Your task to perform on an android device: refresh tabs in the chrome app Image 0: 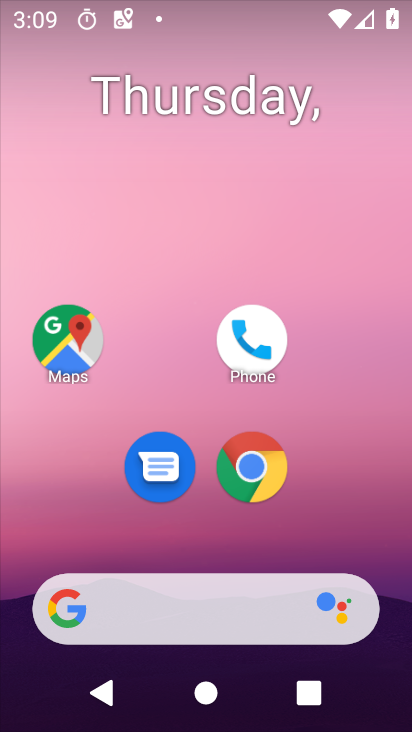
Step 0: drag from (212, 516) to (219, 170)
Your task to perform on an android device: refresh tabs in the chrome app Image 1: 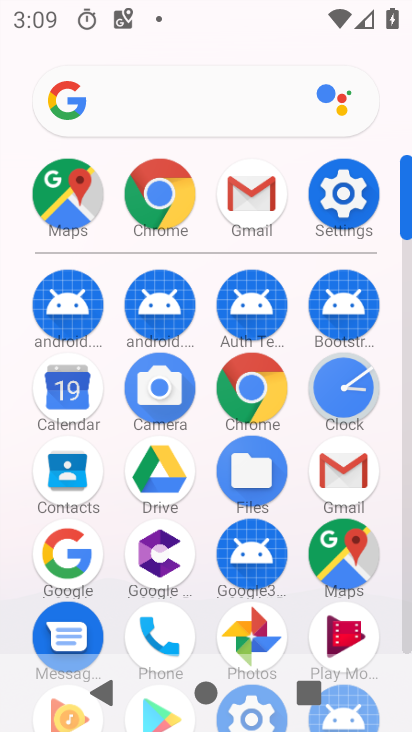
Step 1: click (255, 397)
Your task to perform on an android device: refresh tabs in the chrome app Image 2: 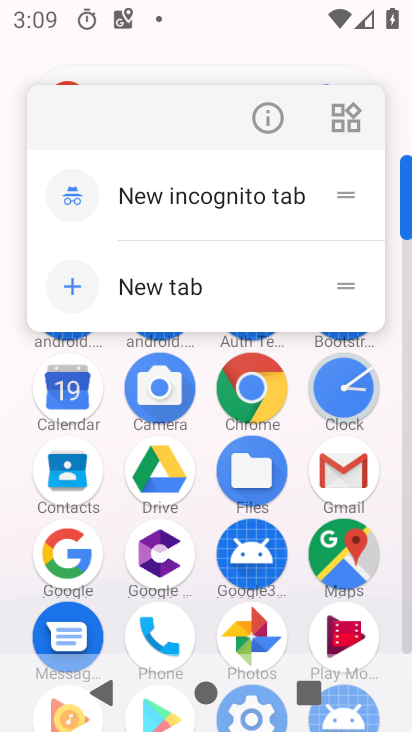
Step 2: click (274, 130)
Your task to perform on an android device: refresh tabs in the chrome app Image 3: 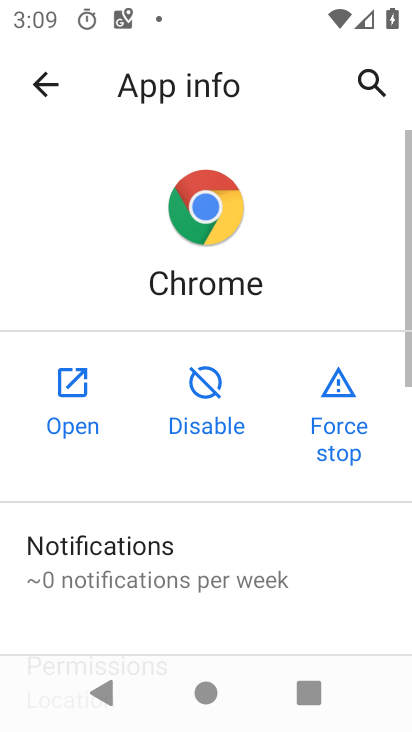
Step 3: click (79, 397)
Your task to perform on an android device: refresh tabs in the chrome app Image 4: 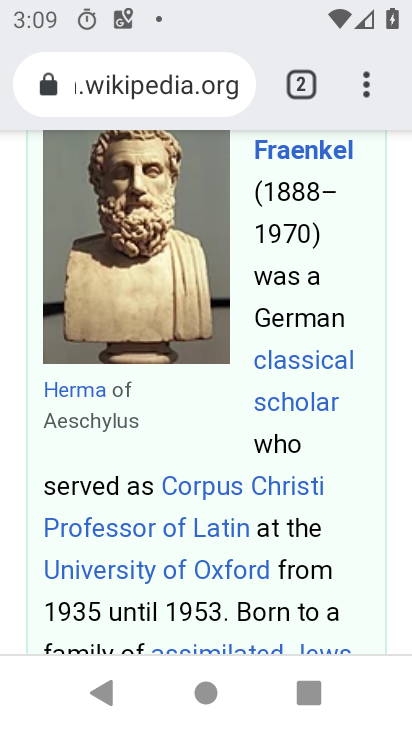
Step 4: drag from (240, 230) to (224, 629)
Your task to perform on an android device: refresh tabs in the chrome app Image 5: 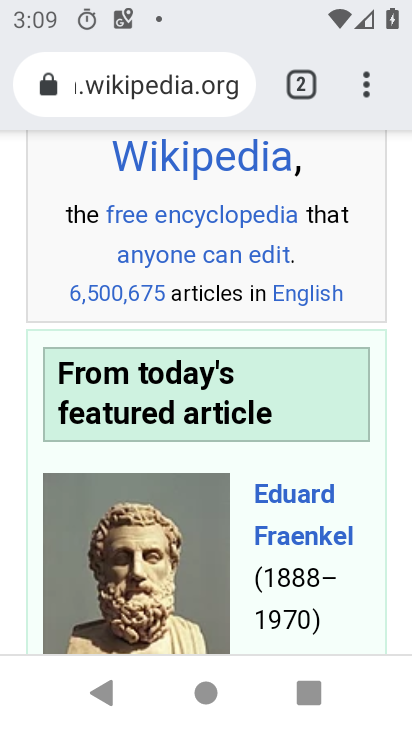
Step 5: drag from (242, 573) to (247, 318)
Your task to perform on an android device: refresh tabs in the chrome app Image 6: 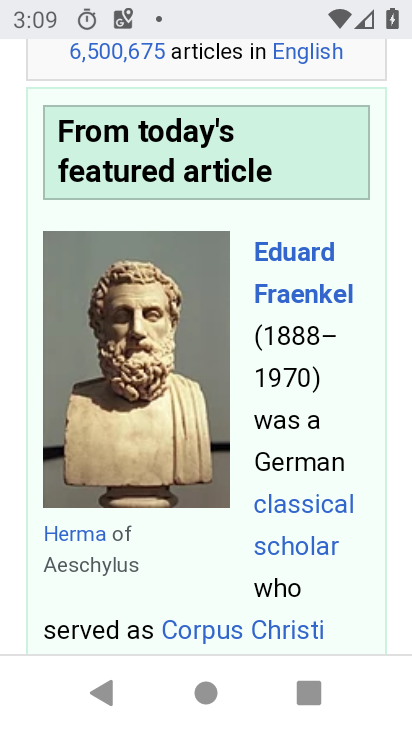
Step 6: drag from (227, 199) to (289, 496)
Your task to perform on an android device: refresh tabs in the chrome app Image 7: 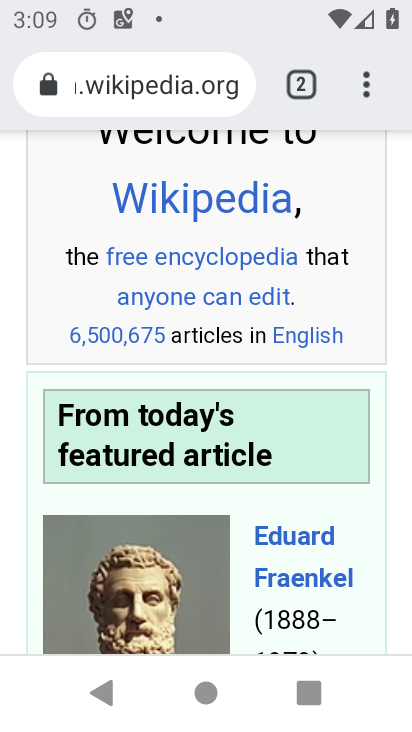
Step 7: drag from (257, 583) to (257, 420)
Your task to perform on an android device: refresh tabs in the chrome app Image 8: 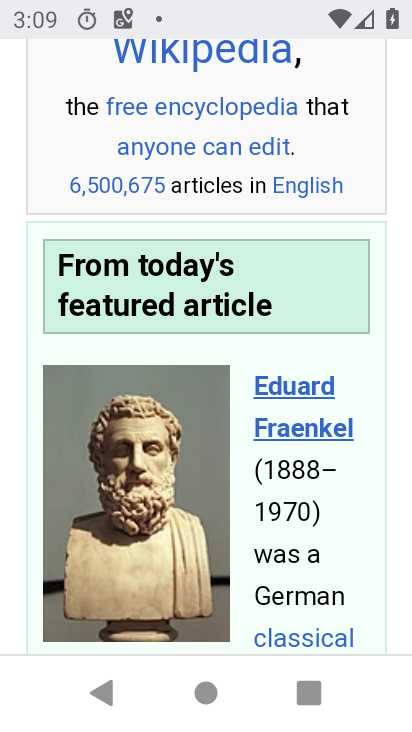
Step 8: drag from (230, 272) to (276, 552)
Your task to perform on an android device: refresh tabs in the chrome app Image 9: 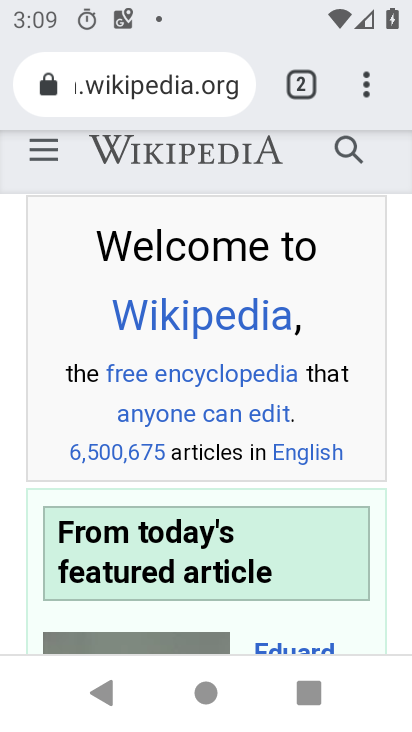
Step 9: drag from (248, 493) to (260, 236)
Your task to perform on an android device: refresh tabs in the chrome app Image 10: 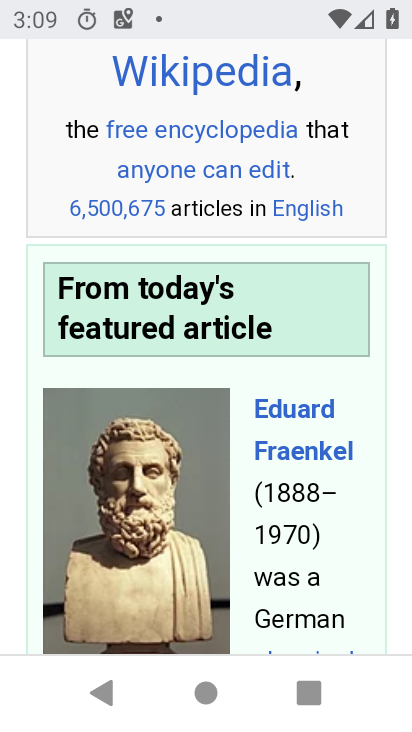
Step 10: drag from (248, 484) to (250, 260)
Your task to perform on an android device: refresh tabs in the chrome app Image 11: 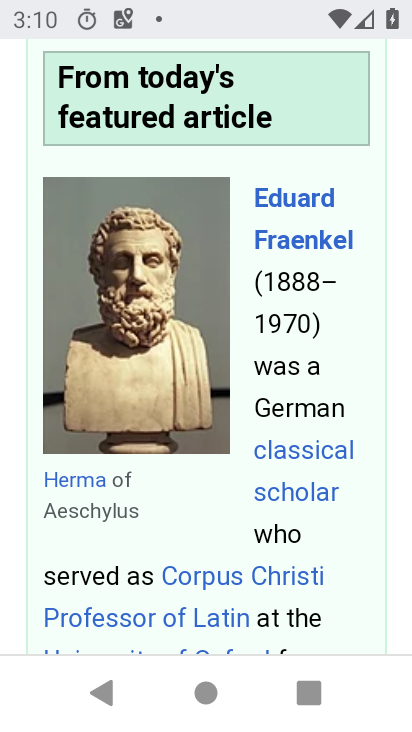
Step 11: drag from (238, 84) to (288, 486)
Your task to perform on an android device: refresh tabs in the chrome app Image 12: 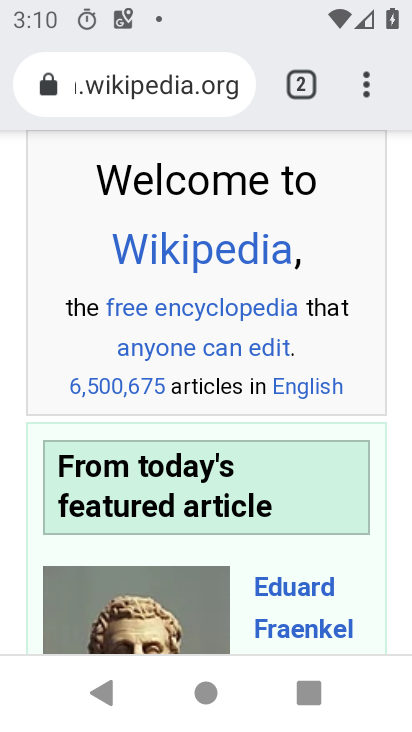
Step 12: drag from (239, 554) to (259, 288)
Your task to perform on an android device: refresh tabs in the chrome app Image 13: 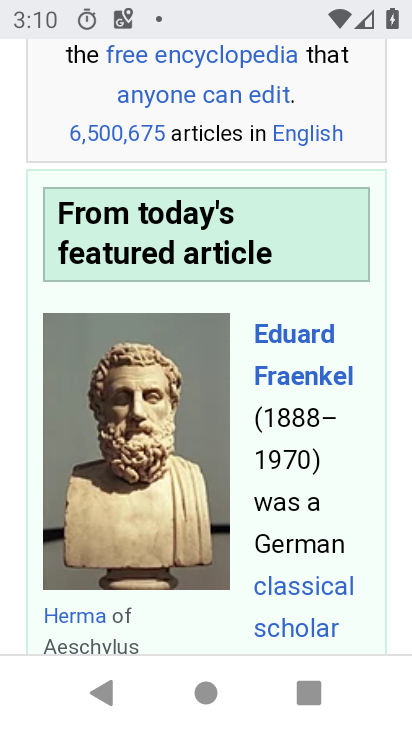
Step 13: press home button
Your task to perform on an android device: refresh tabs in the chrome app Image 14: 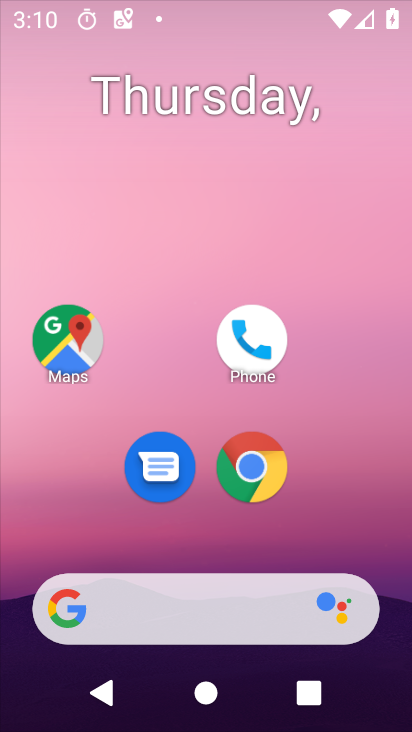
Step 14: drag from (184, 604) to (242, 142)
Your task to perform on an android device: refresh tabs in the chrome app Image 15: 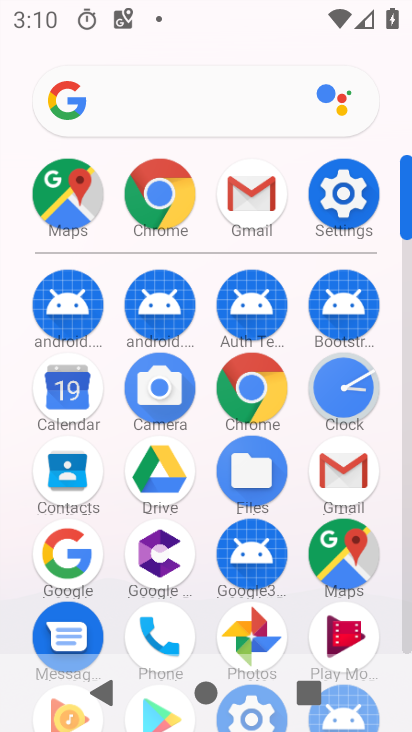
Step 15: click (249, 393)
Your task to perform on an android device: refresh tabs in the chrome app Image 16: 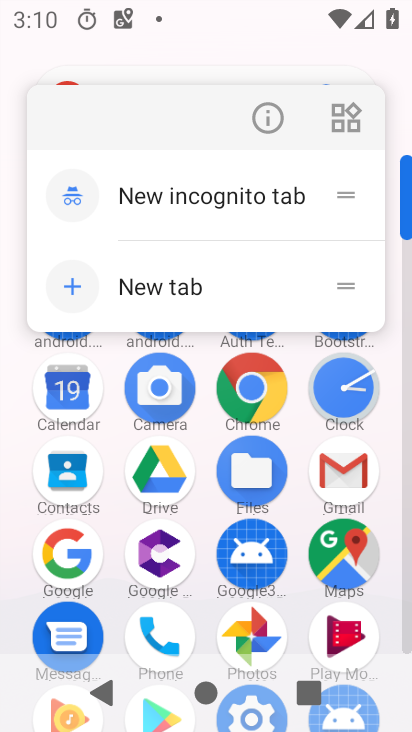
Step 16: click (267, 125)
Your task to perform on an android device: refresh tabs in the chrome app Image 17: 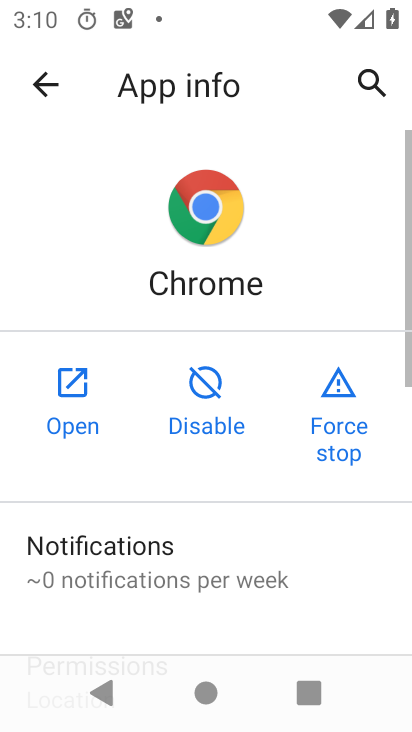
Step 17: click (67, 390)
Your task to perform on an android device: refresh tabs in the chrome app Image 18: 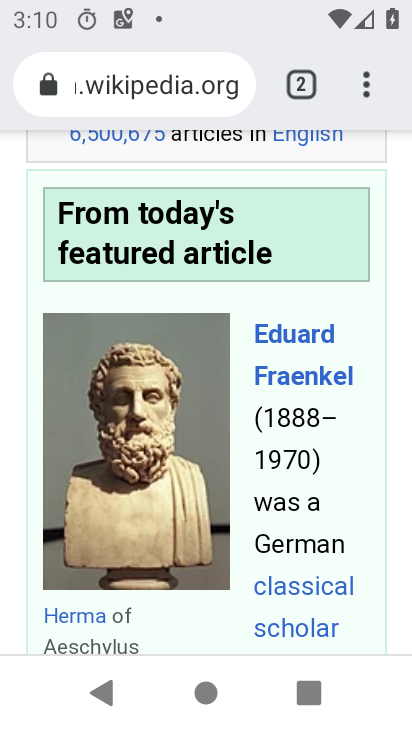
Step 18: drag from (270, 132) to (258, 616)
Your task to perform on an android device: refresh tabs in the chrome app Image 19: 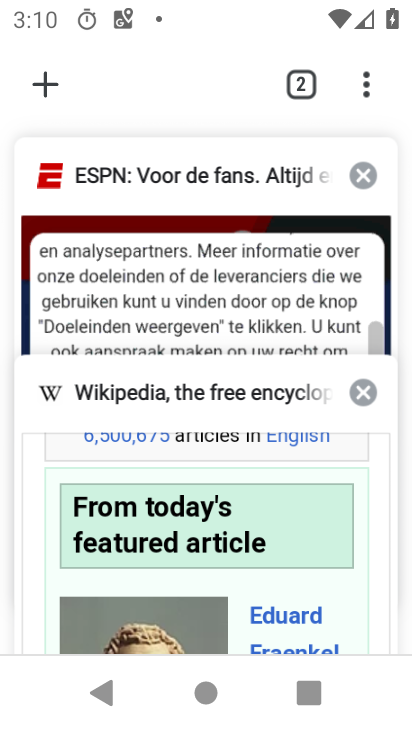
Step 19: click (230, 243)
Your task to perform on an android device: refresh tabs in the chrome app Image 20: 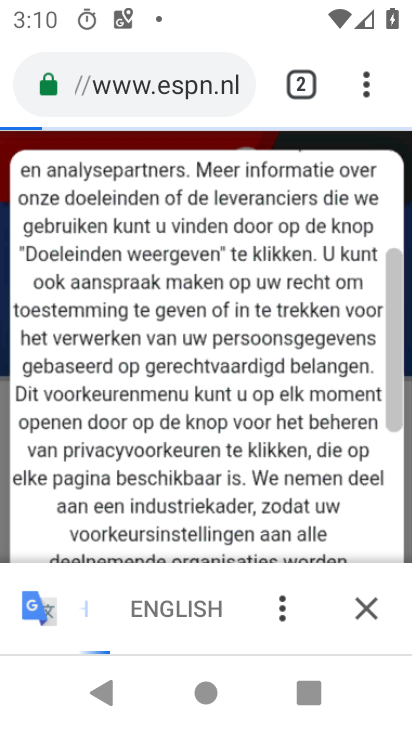
Step 20: click (372, 87)
Your task to perform on an android device: refresh tabs in the chrome app Image 21: 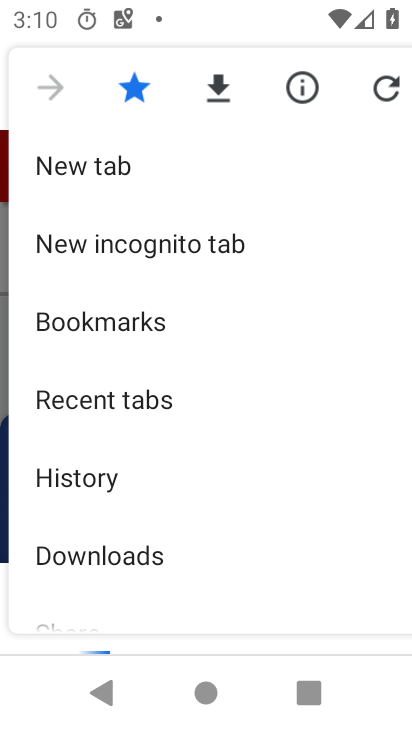
Step 21: drag from (179, 541) to (198, 56)
Your task to perform on an android device: refresh tabs in the chrome app Image 22: 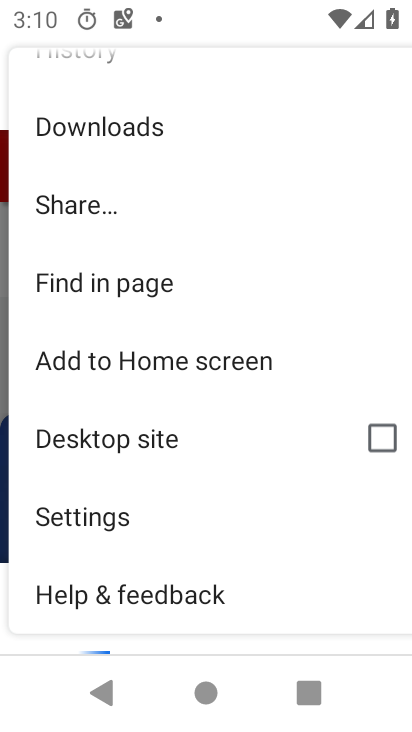
Step 22: drag from (202, 121) to (292, 729)
Your task to perform on an android device: refresh tabs in the chrome app Image 23: 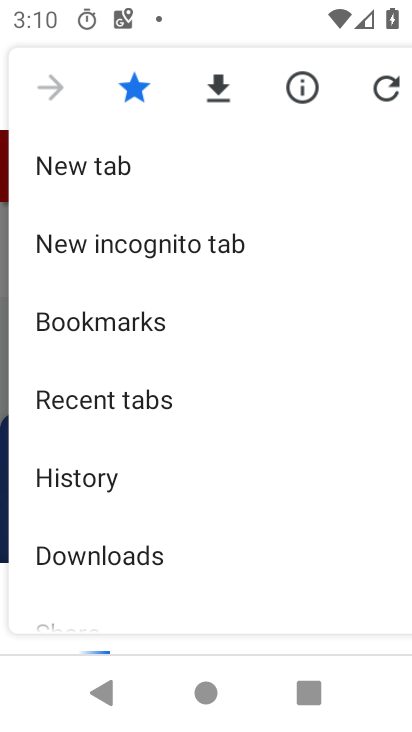
Step 23: click (378, 88)
Your task to perform on an android device: refresh tabs in the chrome app Image 24: 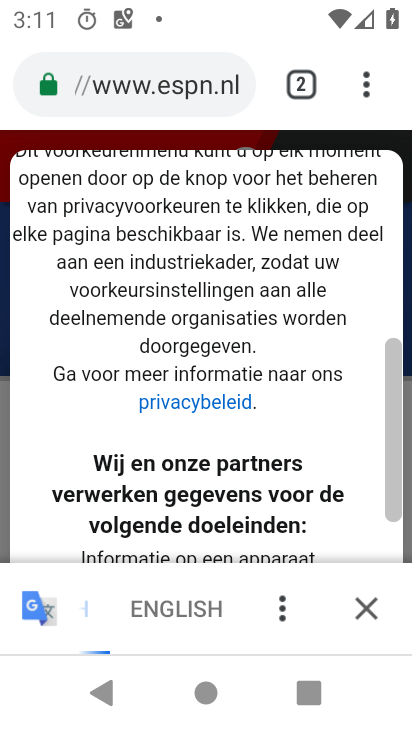
Step 24: click (368, 89)
Your task to perform on an android device: refresh tabs in the chrome app Image 25: 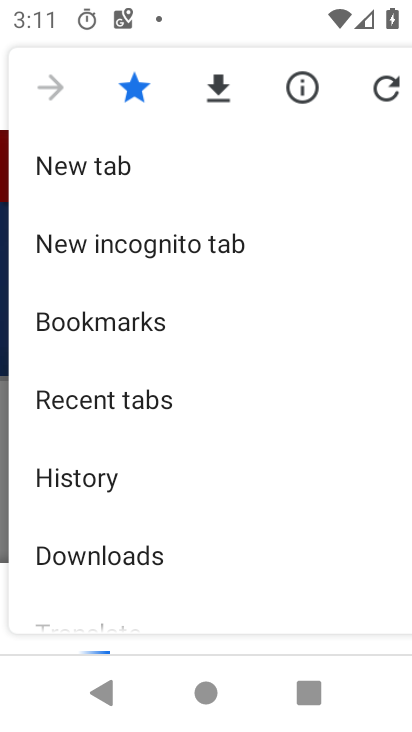
Step 25: click (388, 88)
Your task to perform on an android device: refresh tabs in the chrome app Image 26: 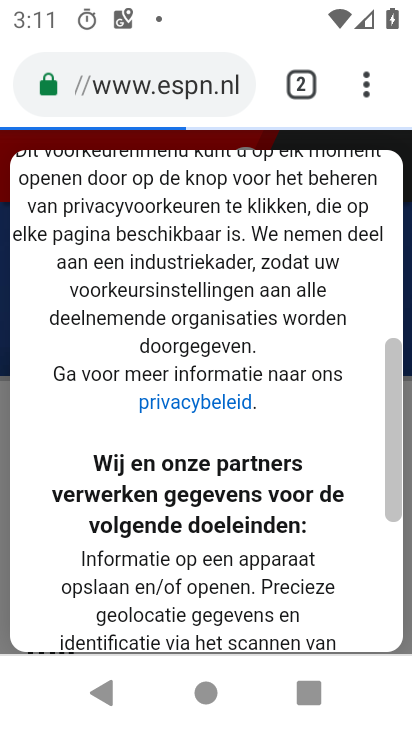
Step 26: task complete